Your task to perform on an android device: What is the recent news? Image 0: 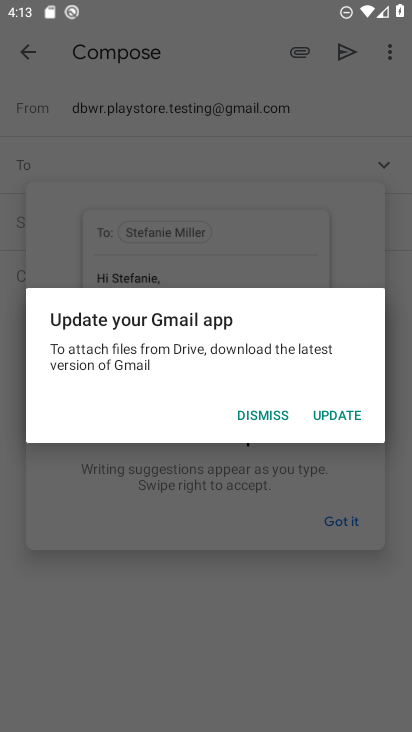
Step 0: press home button
Your task to perform on an android device: What is the recent news? Image 1: 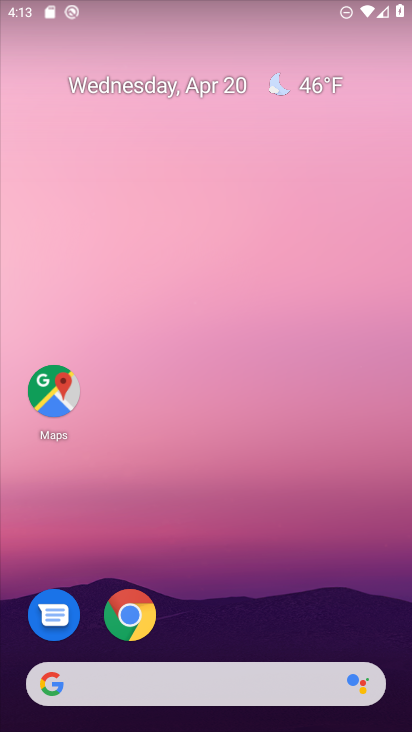
Step 1: drag from (246, 515) to (339, 142)
Your task to perform on an android device: What is the recent news? Image 2: 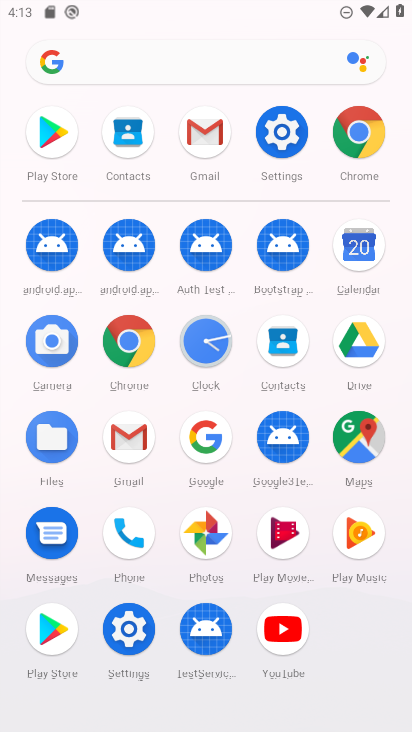
Step 2: click (360, 156)
Your task to perform on an android device: What is the recent news? Image 3: 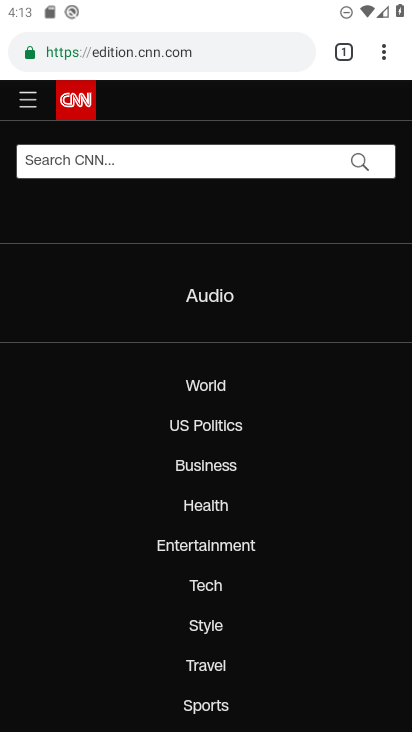
Step 3: click (383, 50)
Your task to perform on an android device: What is the recent news? Image 4: 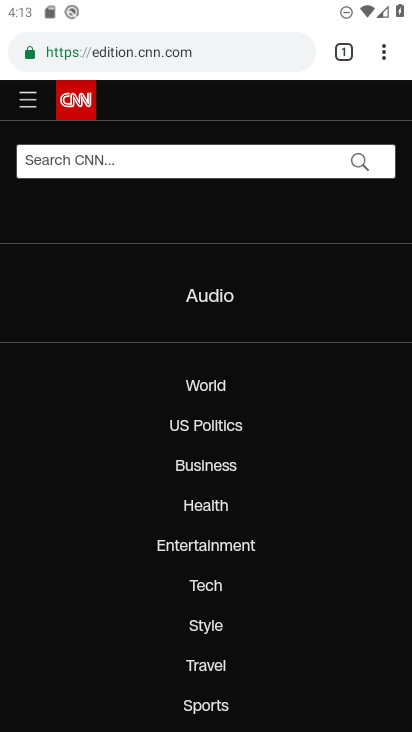
Step 4: task complete